Your task to perform on an android device: turn off location history Image 0: 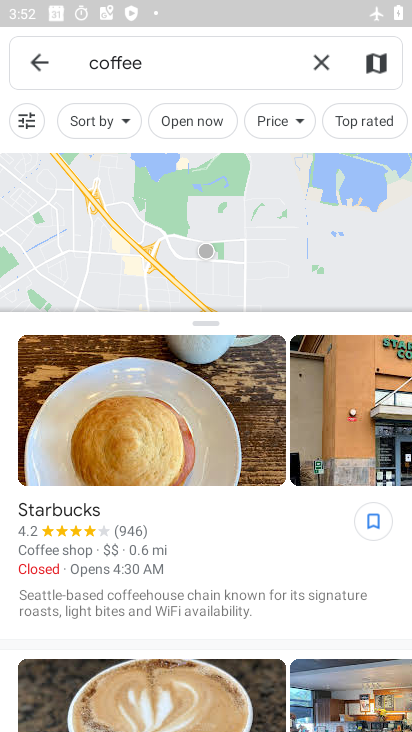
Step 0: press home button
Your task to perform on an android device: turn off location history Image 1: 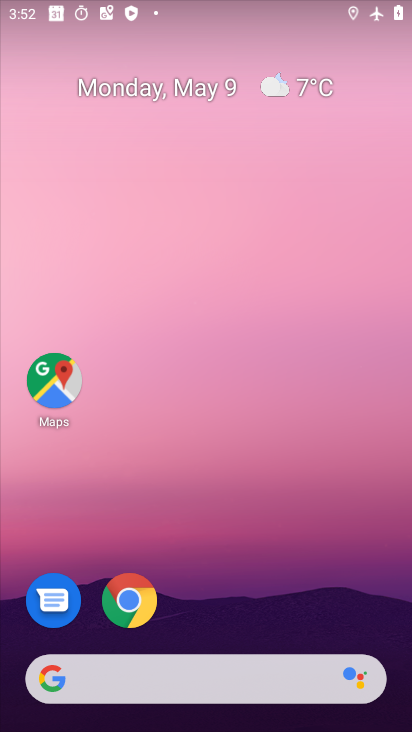
Step 1: drag from (303, 633) to (279, 194)
Your task to perform on an android device: turn off location history Image 2: 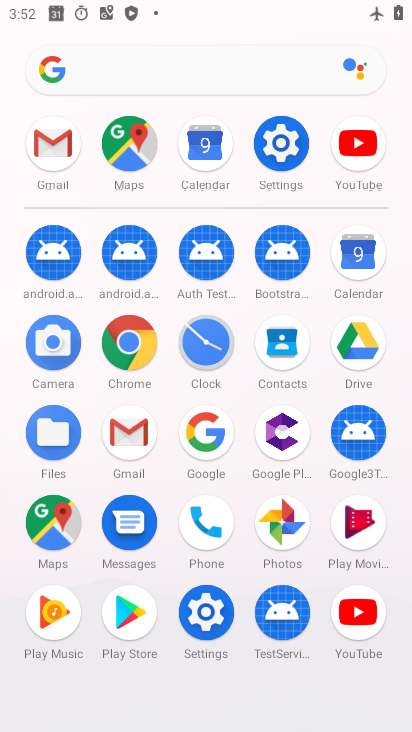
Step 2: click (285, 140)
Your task to perform on an android device: turn off location history Image 3: 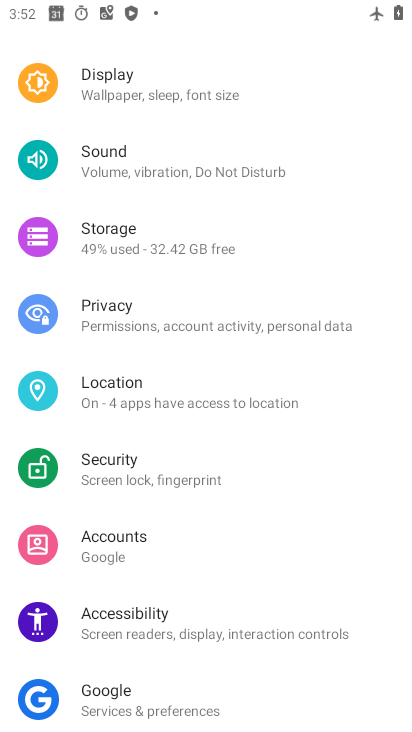
Step 3: click (185, 405)
Your task to perform on an android device: turn off location history Image 4: 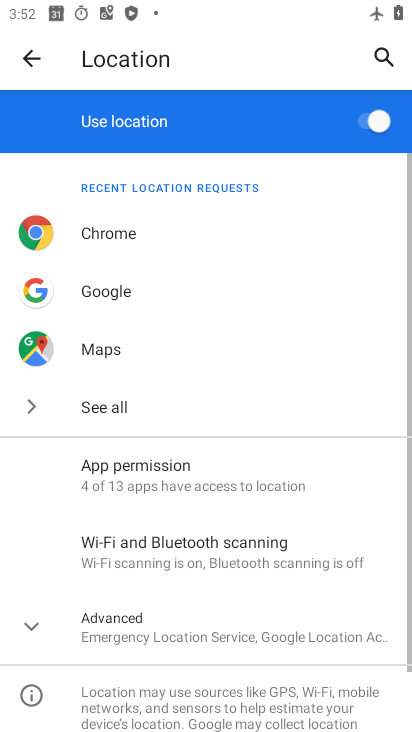
Step 4: click (219, 643)
Your task to perform on an android device: turn off location history Image 5: 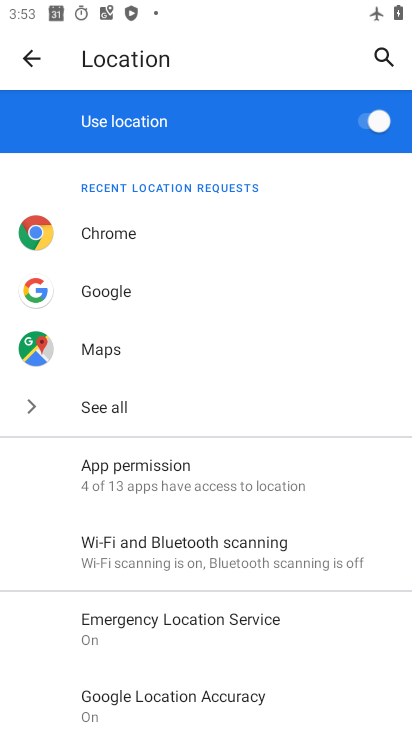
Step 5: drag from (240, 579) to (278, 157)
Your task to perform on an android device: turn off location history Image 6: 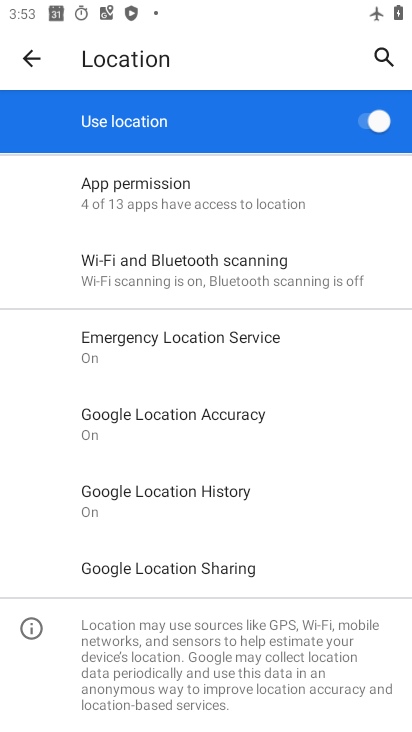
Step 6: click (225, 498)
Your task to perform on an android device: turn off location history Image 7: 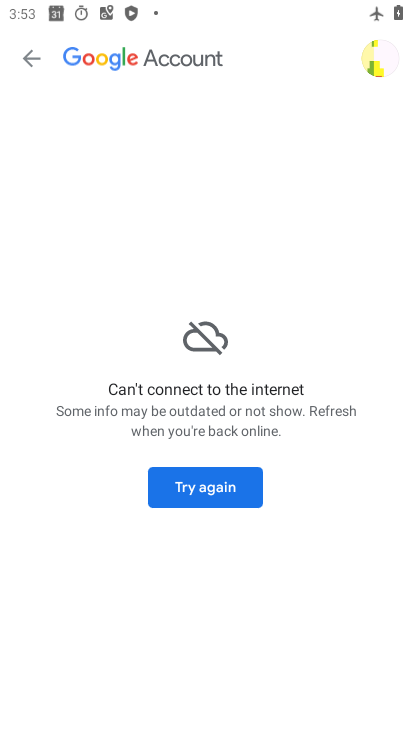
Step 7: task complete